Your task to perform on an android device: toggle location history Image 0: 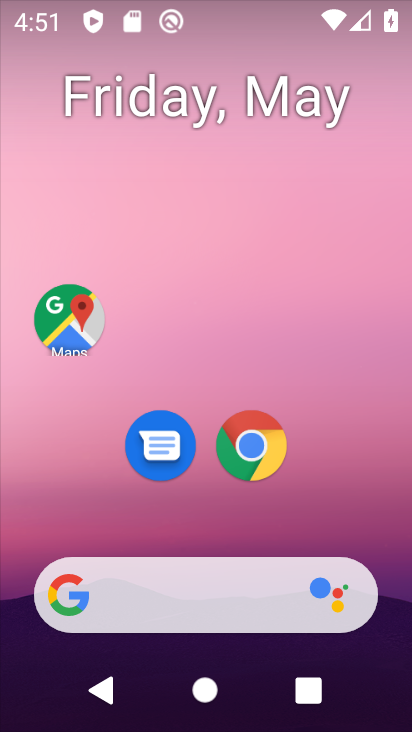
Step 0: drag from (234, 564) to (130, 174)
Your task to perform on an android device: toggle location history Image 1: 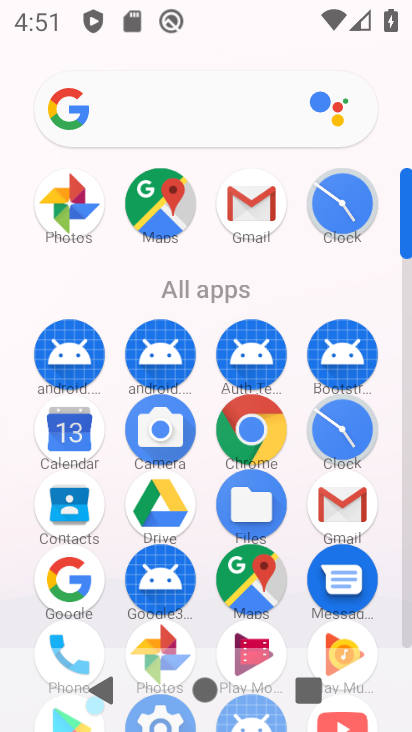
Step 1: drag from (305, 504) to (200, 144)
Your task to perform on an android device: toggle location history Image 2: 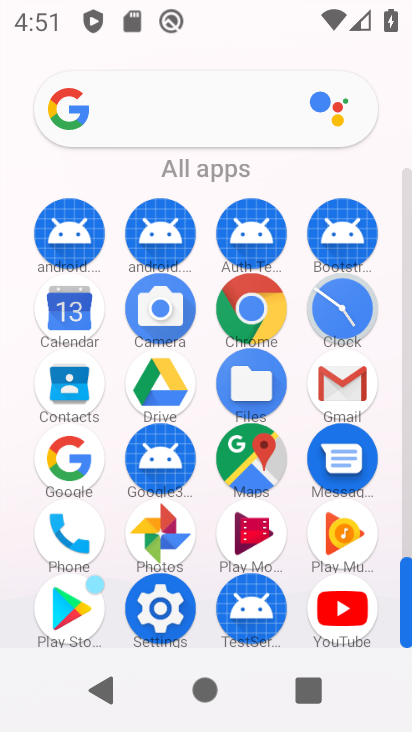
Step 2: click (258, 431)
Your task to perform on an android device: toggle location history Image 3: 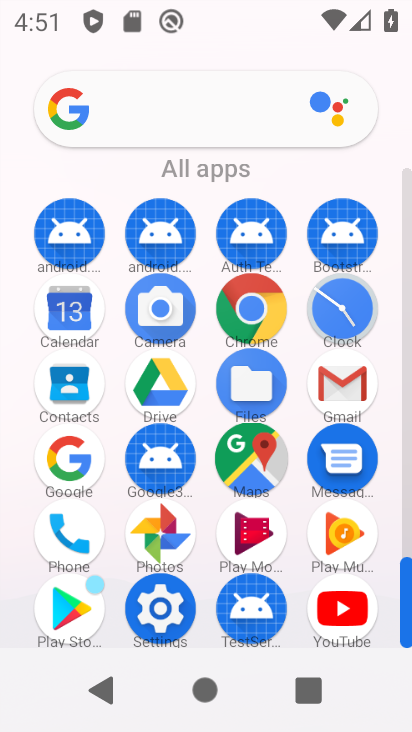
Step 3: click (255, 449)
Your task to perform on an android device: toggle location history Image 4: 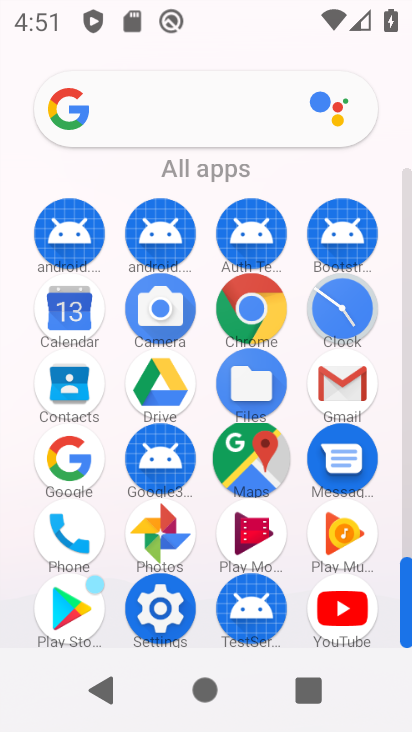
Step 4: click (255, 450)
Your task to perform on an android device: toggle location history Image 5: 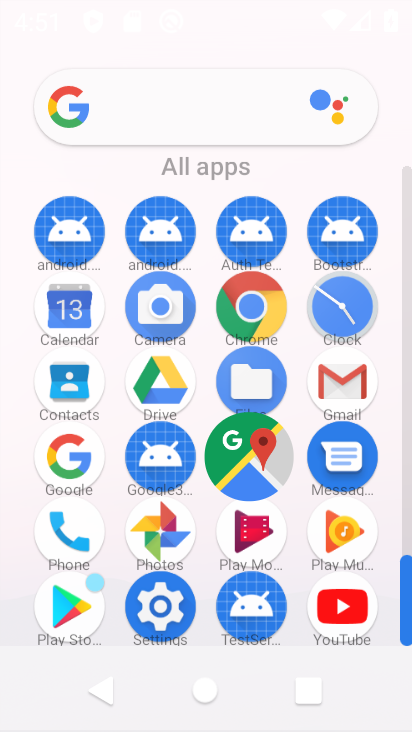
Step 5: click (255, 450)
Your task to perform on an android device: toggle location history Image 6: 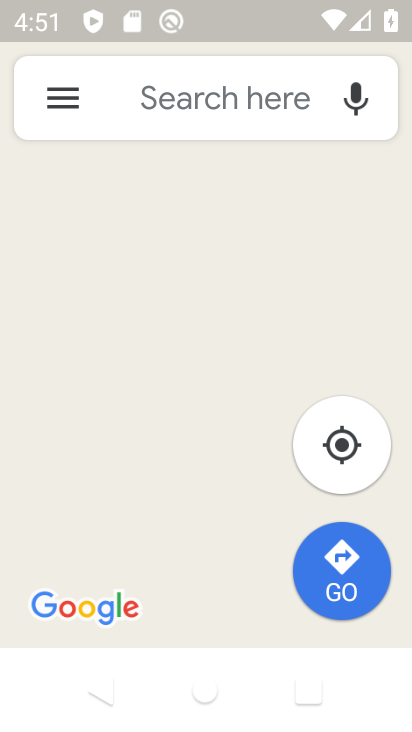
Step 6: click (216, 314)
Your task to perform on an android device: toggle location history Image 7: 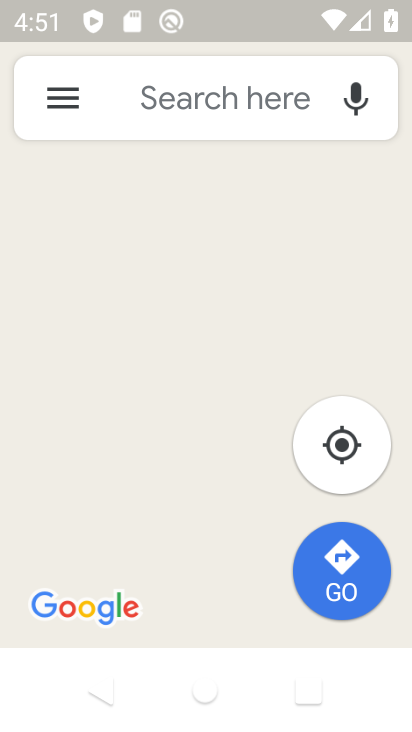
Step 7: click (215, 308)
Your task to perform on an android device: toggle location history Image 8: 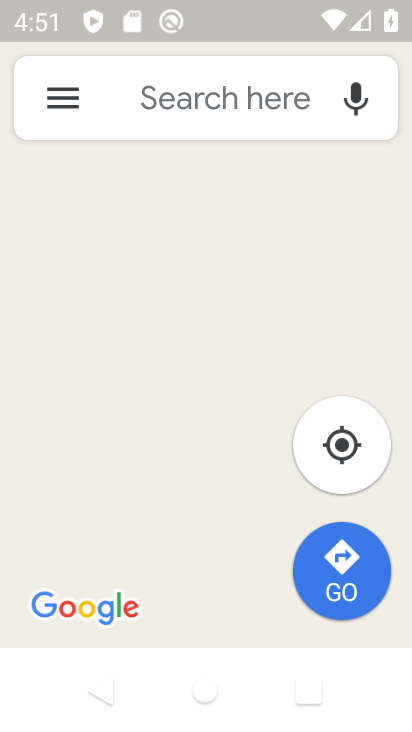
Step 8: click (214, 306)
Your task to perform on an android device: toggle location history Image 9: 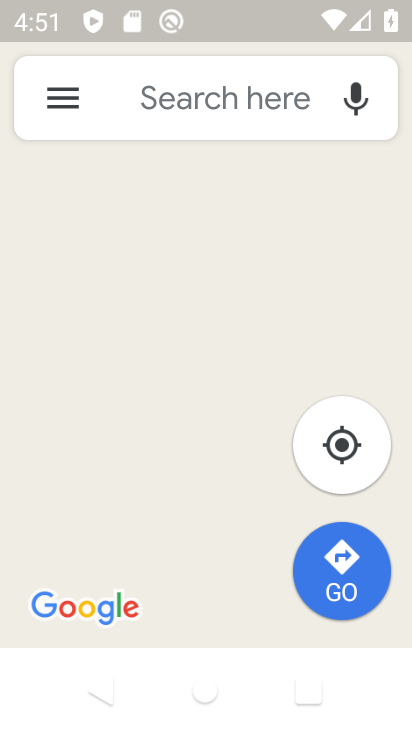
Step 9: click (214, 306)
Your task to perform on an android device: toggle location history Image 10: 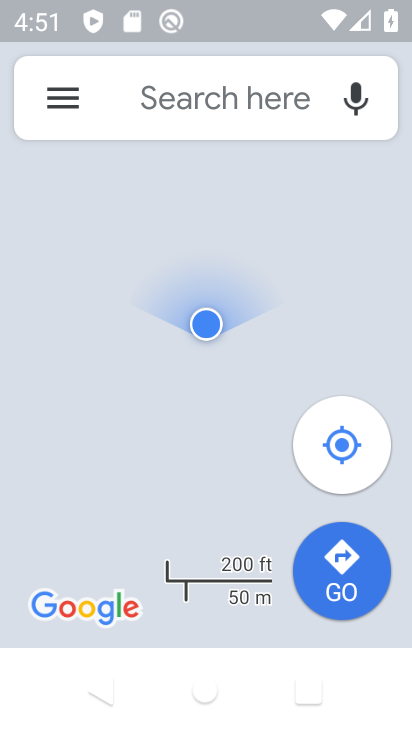
Step 10: click (57, 107)
Your task to perform on an android device: toggle location history Image 11: 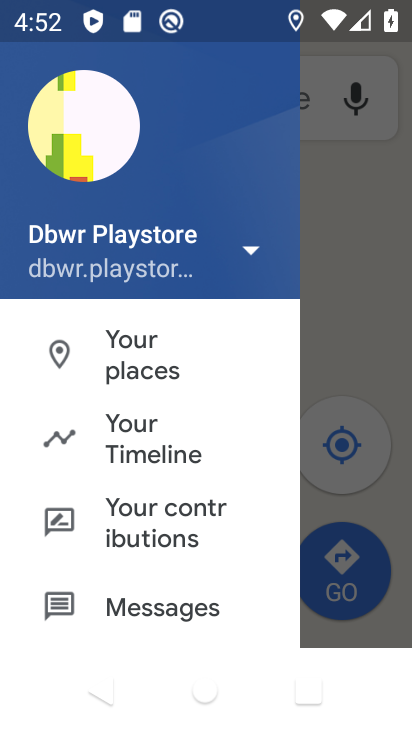
Step 11: click (163, 434)
Your task to perform on an android device: toggle location history Image 12: 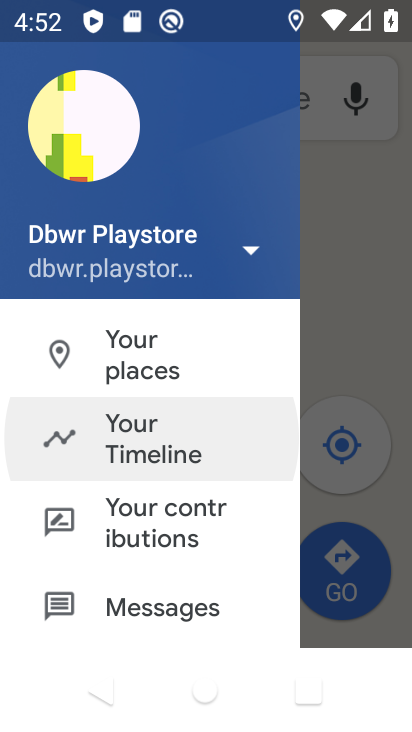
Step 12: click (161, 431)
Your task to perform on an android device: toggle location history Image 13: 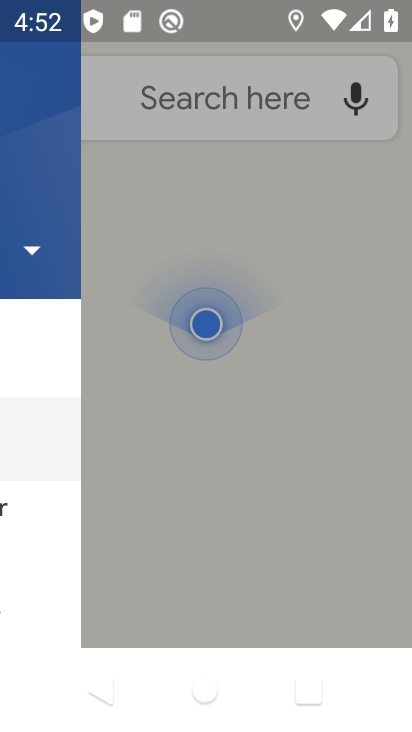
Step 13: click (154, 434)
Your task to perform on an android device: toggle location history Image 14: 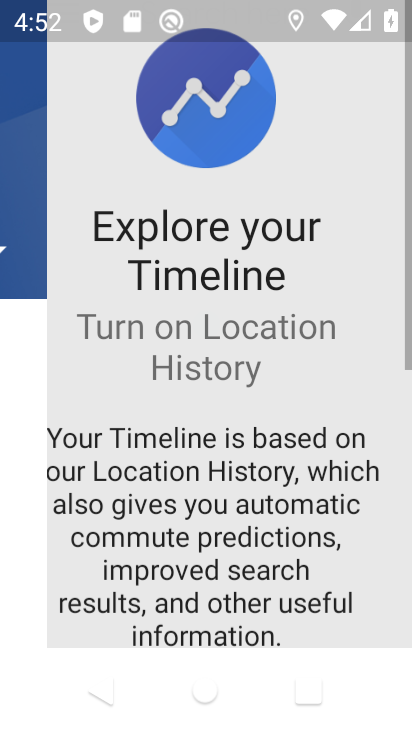
Step 14: click (156, 435)
Your task to perform on an android device: toggle location history Image 15: 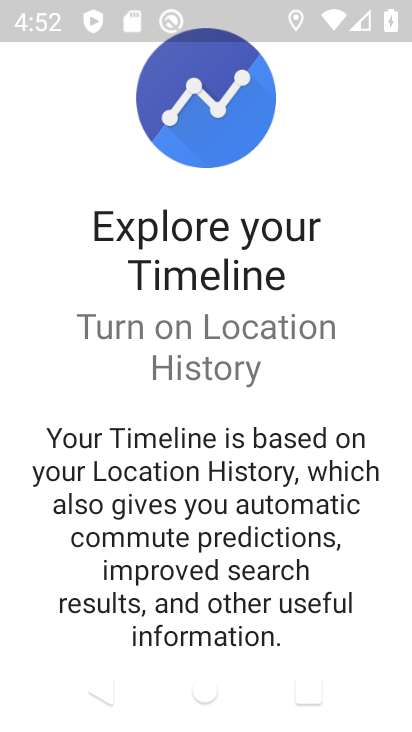
Step 15: drag from (188, 443) to (65, 42)
Your task to perform on an android device: toggle location history Image 16: 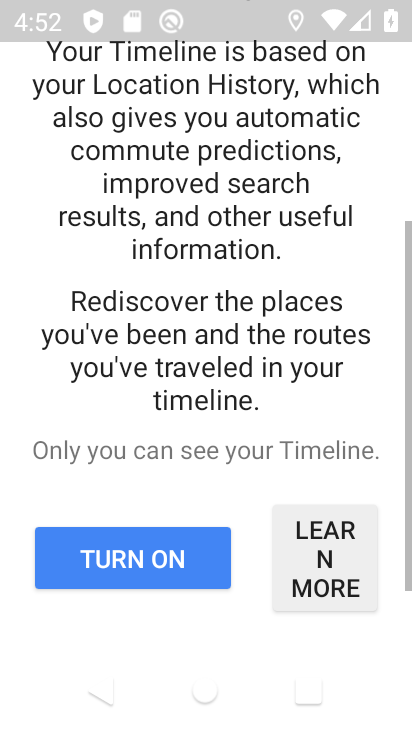
Step 16: drag from (224, 472) to (189, 21)
Your task to perform on an android device: toggle location history Image 17: 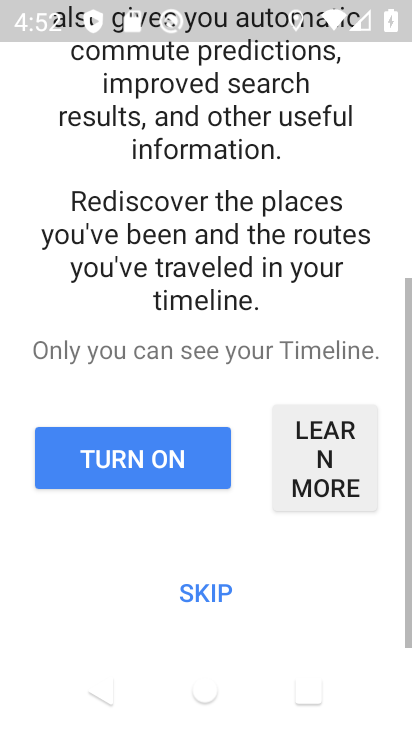
Step 17: drag from (245, 334) to (206, 101)
Your task to perform on an android device: toggle location history Image 18: 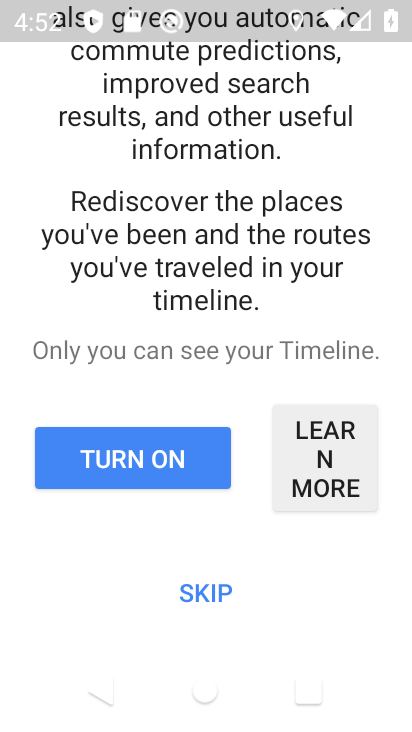
Step 18: click (150, 452)
Your task to perform on an android device: toggle location history Image 19: 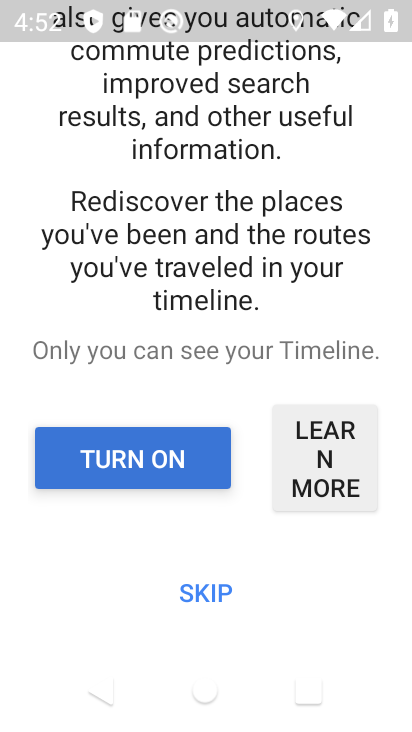
Step 19: click (148, 452)
Your task to perform on an android device: toggle location history Image 20: 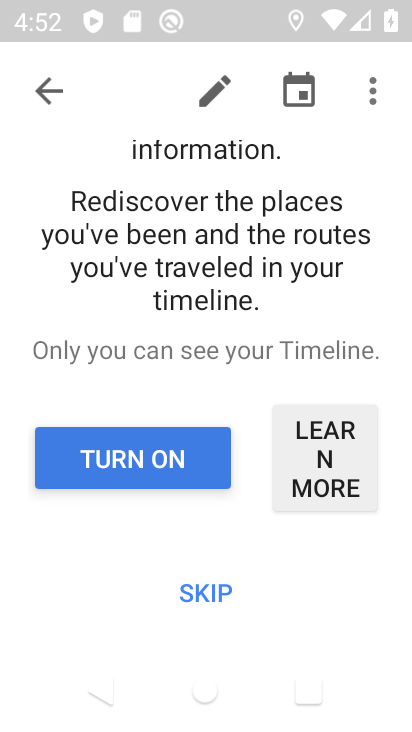
Step 20: click (145, 447)
Your task to perform on an android device: toggle location history Image 21: 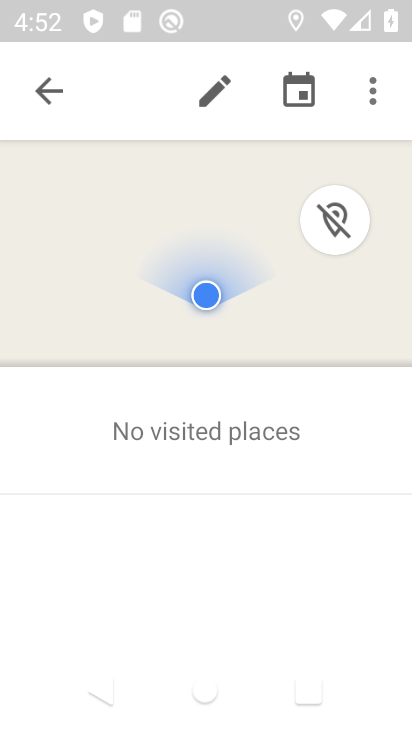
Step 21: click (145, 447)
Your task to perform on an android device: toggle location history Image 22: 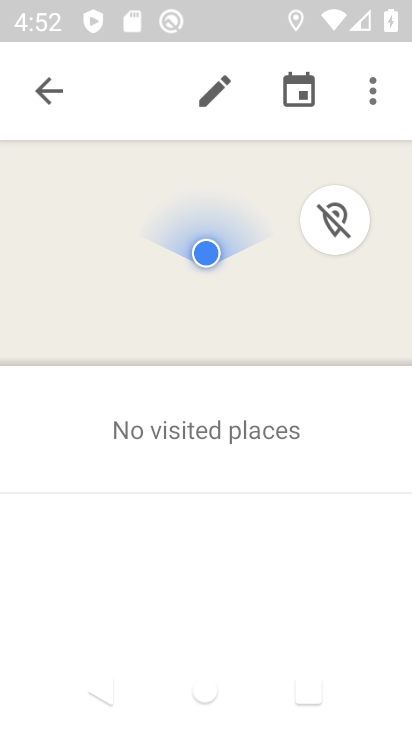
Step 22: click (140, 446)
Your task to perform on an android device: toggle location history Image 23: 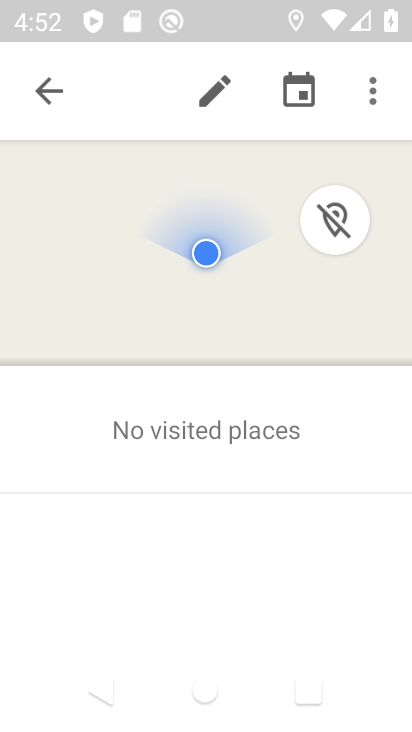
Step 23: click (140, 456)
Your task to perform on an android device: toggle location history Image 24: 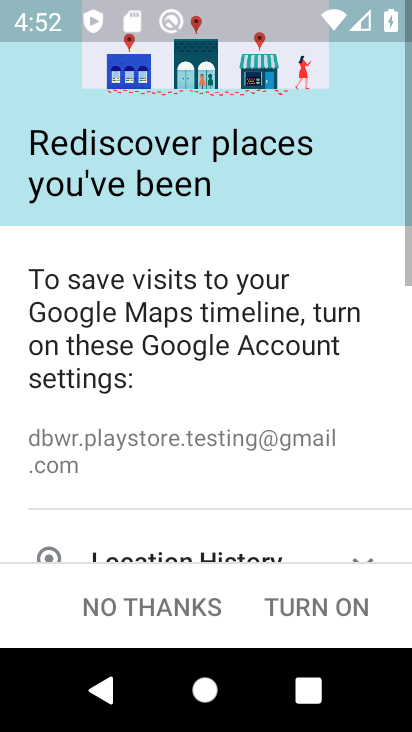
Step 24: task complete